Your task to perform on an android device: Open settings Image 0: 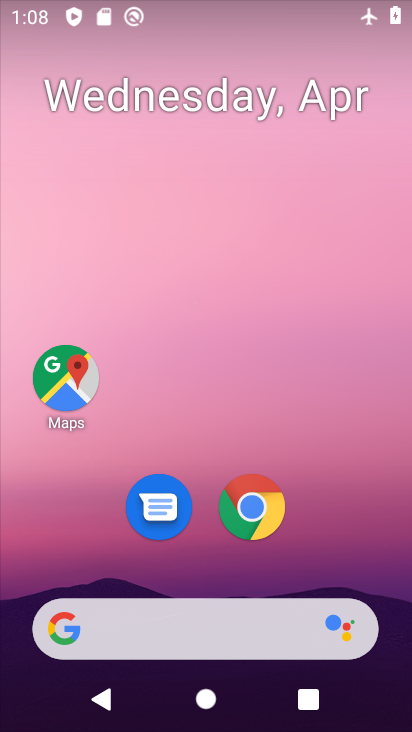
Step 0: drag from (186, 585) to (303, 22)
Your task to perform on an android device: Open settings Image 1: 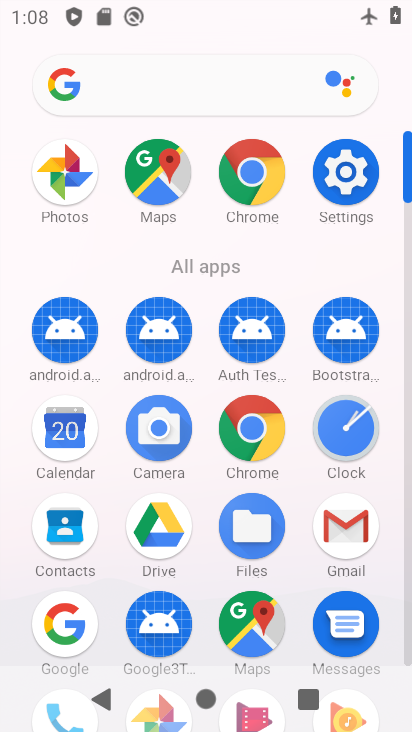
Step 1: click (346, 164)
Your task to perform on an android device: Open settings Image 2: 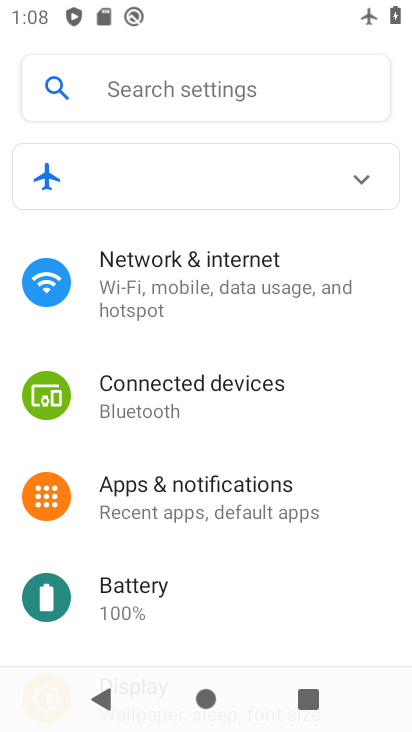
Step 2: task complete